Your task to perform on an android device: add a contact in the contacts app Image 0: 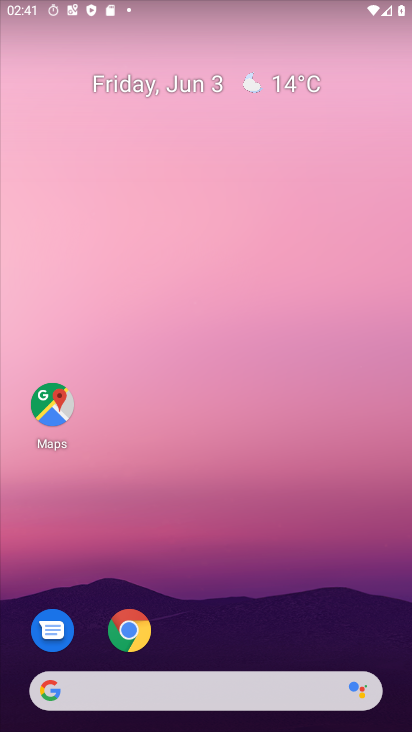
Step 0: drag from (397, 709) to (347, 211)
Your task to perform on an android device: add a contact in the contacts app Image 1: 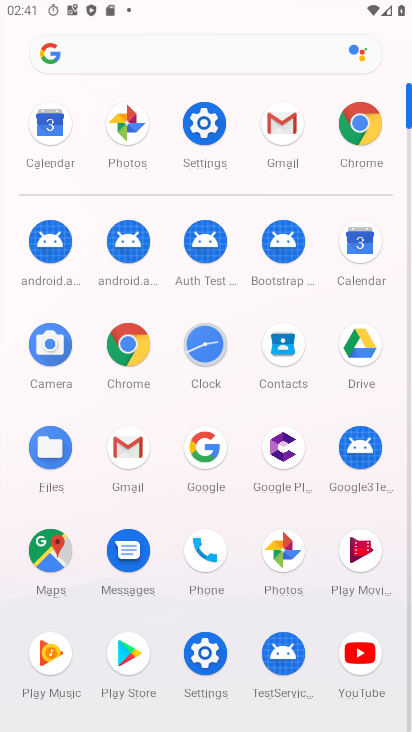
Step 1: click (279, 342)
Your task to perform on an android device: add a contact in the contacts app Image 2: 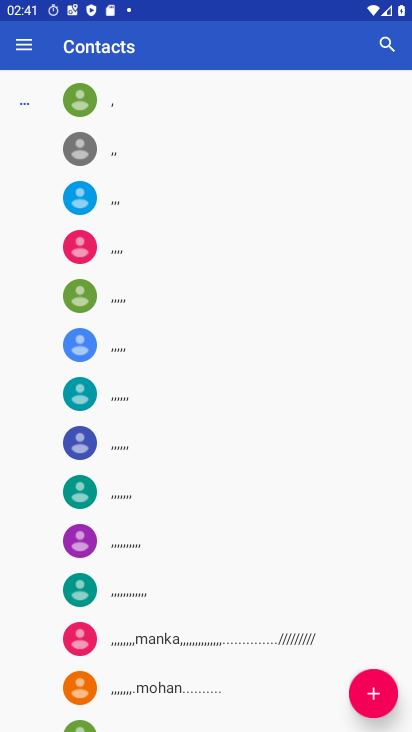
Step 2: click (364, 702)
Your task to perform on an android device: add a contact in the contacts app Image 3: 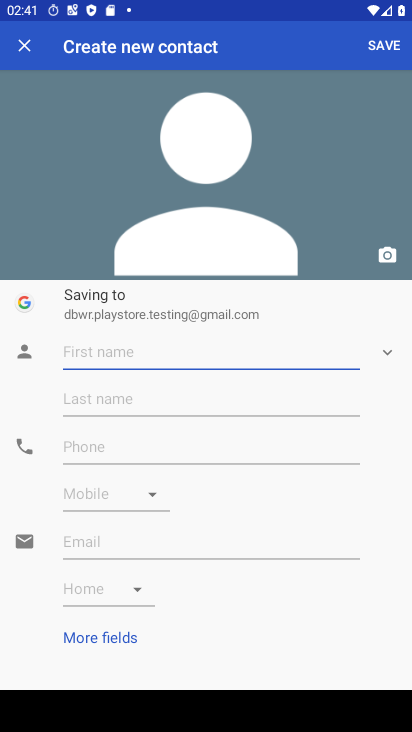
Step 3: click (98, 355)
Your task to perform on an android device: add a contact in the contacts app Image 4: 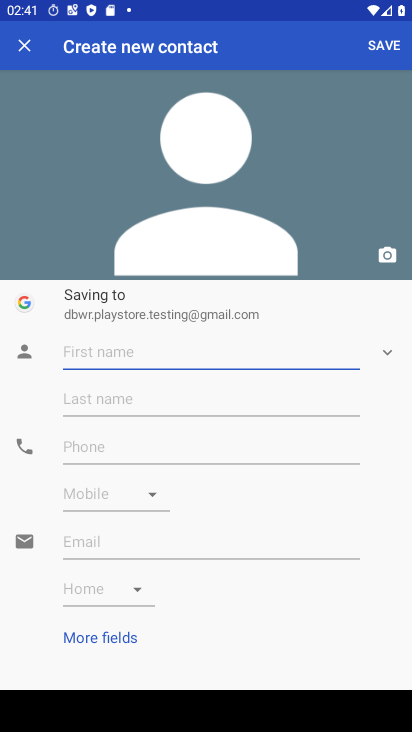
Step 4: type "gffhdhdj"
Your task to perform on an android device: add a contact in the contacts app Image 5: 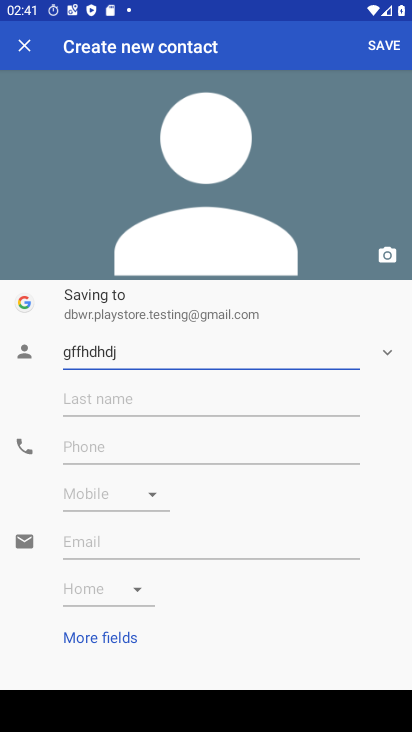
Step 5: click (172, 407)
Your task to perform on an android device: add a contact in the contacts app Image 6: 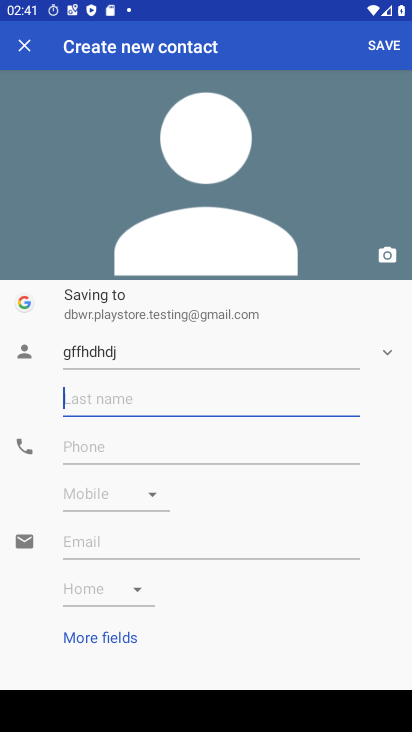
Step 6: type "cydhfyf"
Your task to perform on an android device: add a contact in the contacts app Image 7: 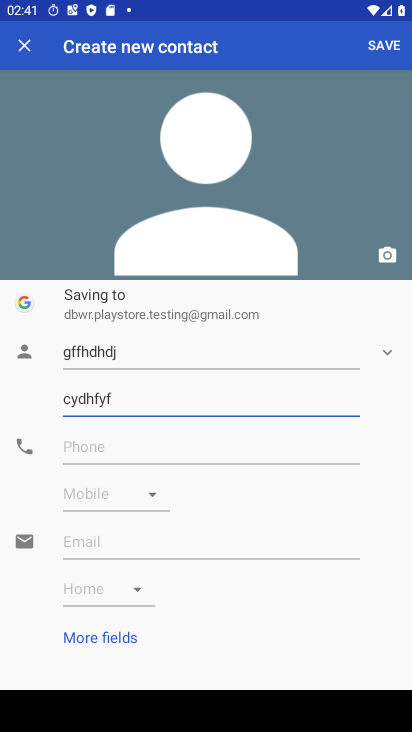
Step 7: click (114, 451)
Your task to perform on an android device: add a contact in the contacts app Image 8: 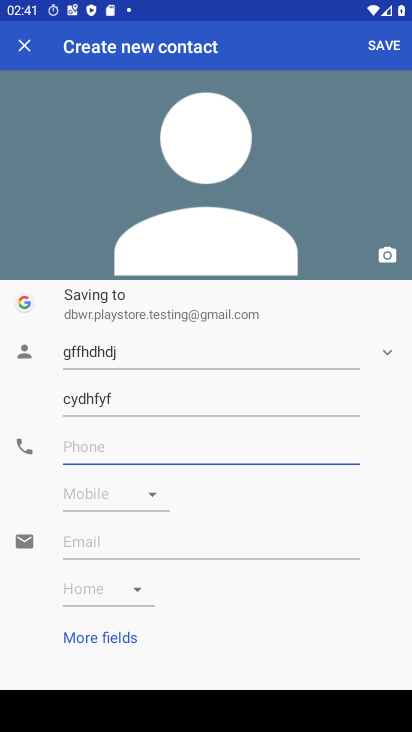
Step 8: type "5475456474"
Your task to perform on an android device: add a contact in the contacts app Image 9: 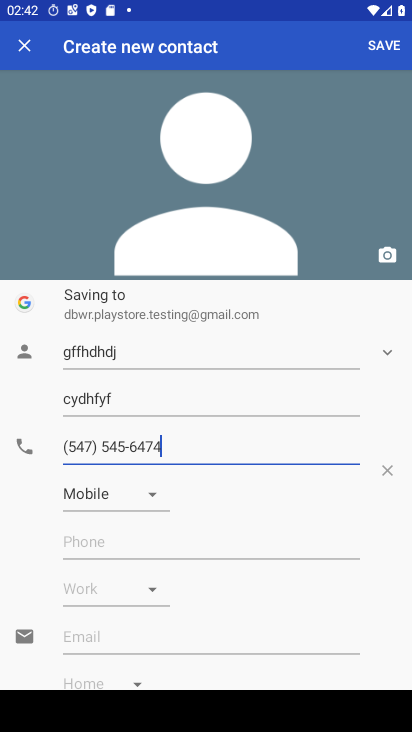
Step 9: task complete